Your task to perform on an android device: find snoozed emails in the gmail app Image 0: 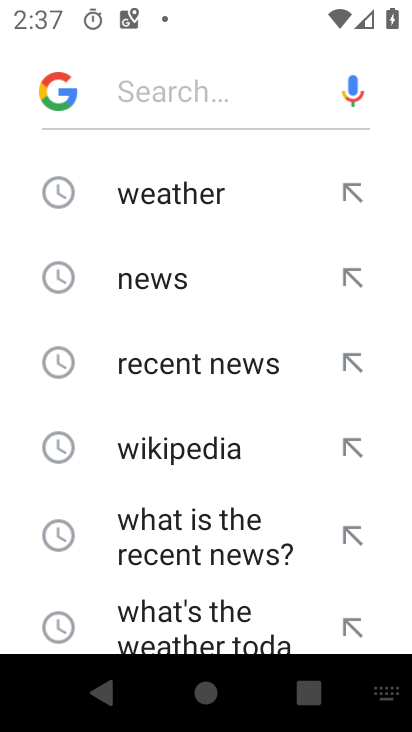
Step 0: press home button
Your task to perform on an android device: find snoozed emails in the gmail app Image 1: 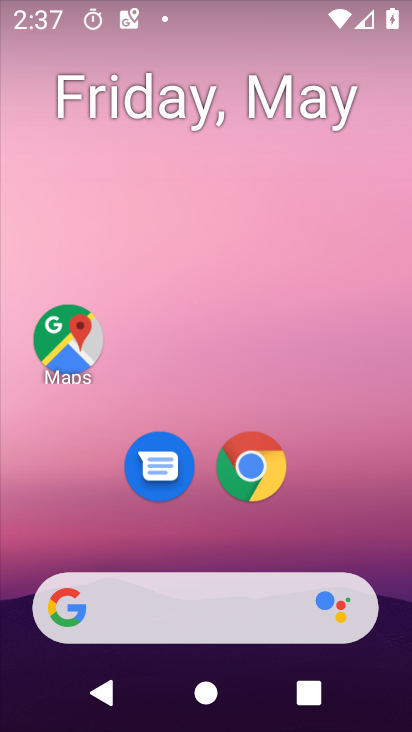
Step 1: drag from (375, 537) to (398, 0)
Your task to perform on an android device: find snoozed emails in the gmail app Image 2: 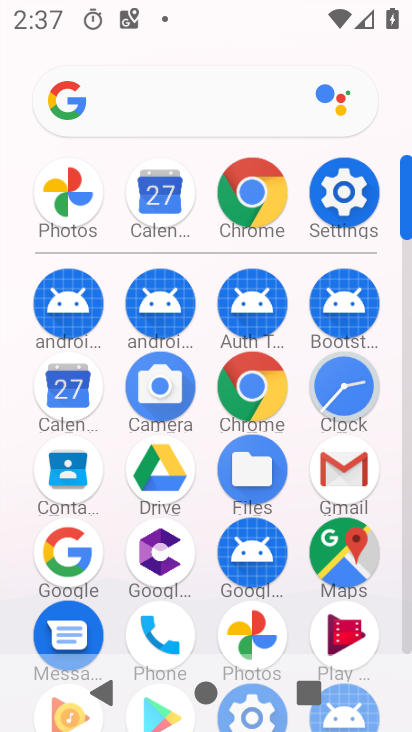
Step 2: click (350, 464)
Your task to perform on an android device: find snoozed emails in the gmail app Image 3: 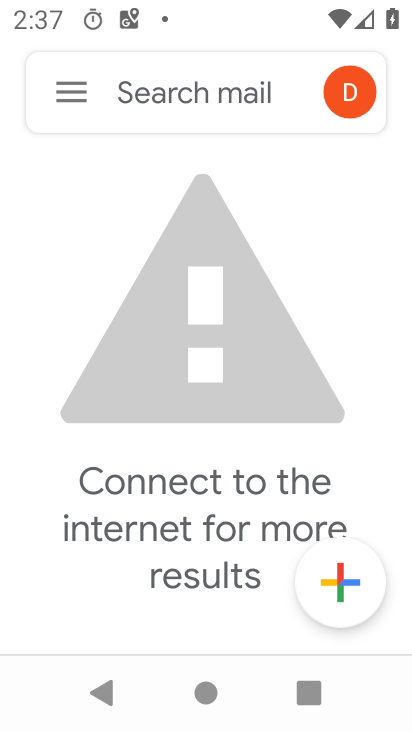
Step 3: click (57, 90)
Your task to perform on an android device: find snoozed emails in the gmail app Image 4: 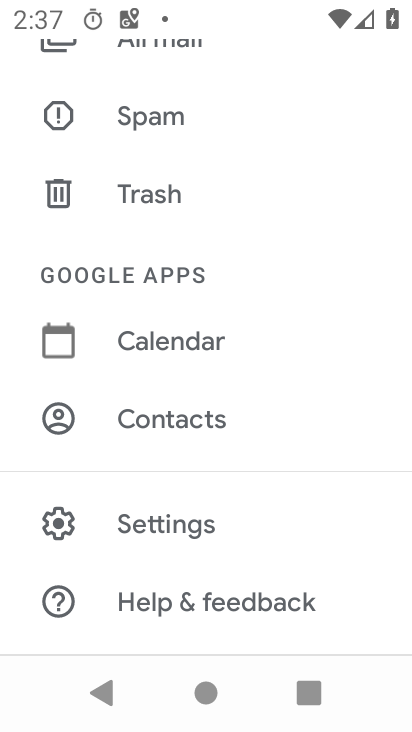
Step 4: drag from (77, 113) to (165, 620)
Your task to perform on an android device: find snoozed emails in the gmail app Image 5: 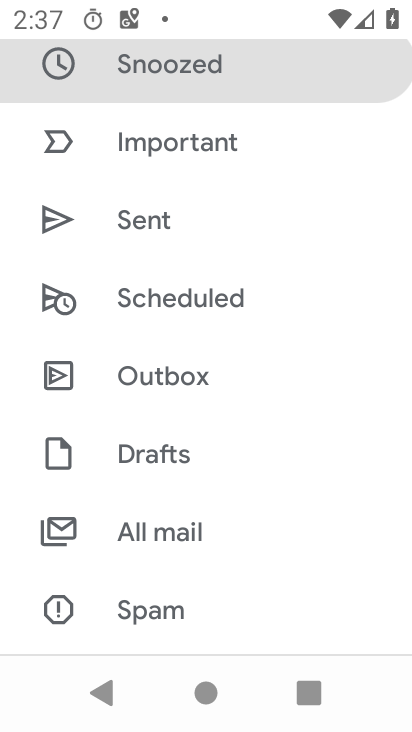
Step 5: drag from (236, 187) to (220, 624)
Your task to perform on an android device: find snoozed emails in the gmail app Image 6: 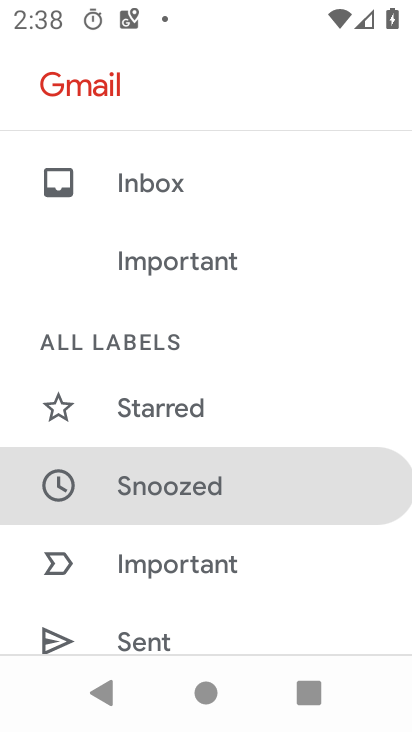
Step 6: click (195, 485)
Your task to perform on an android device: find snoozed emails in the gmail app Image 7: 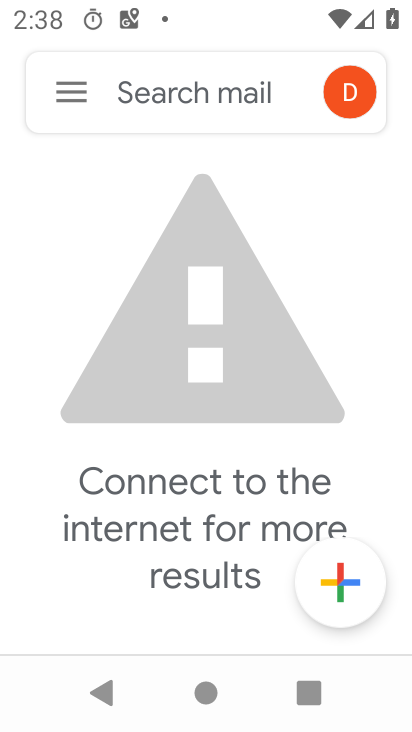
Step 7: task complete